Your task to perform on an android device: toggle notification dots Image 0: 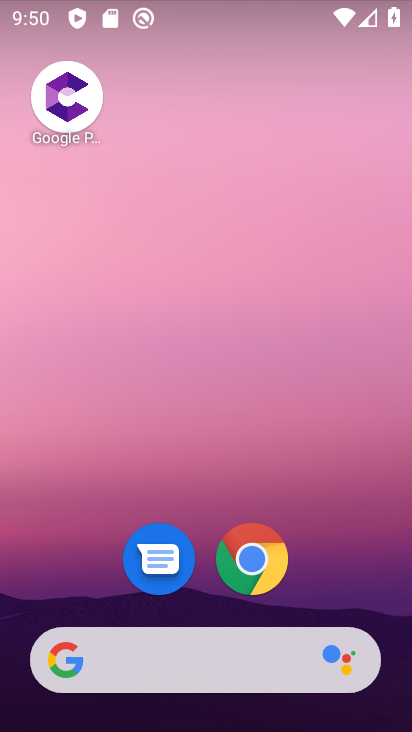
Step 0: press home button
Your task to perform on an android device: toggle notification dots Image 1: 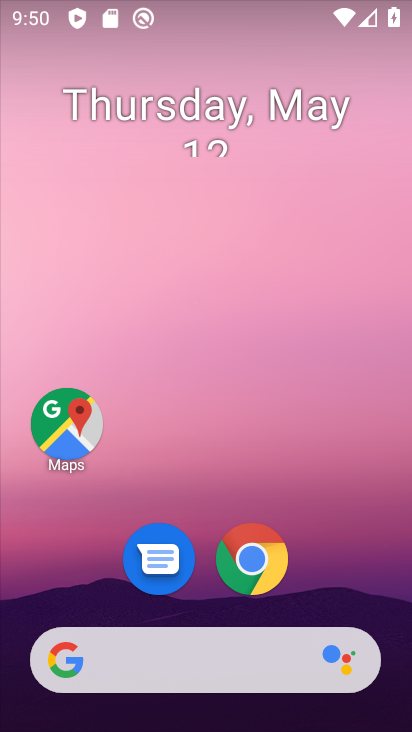
Step 1: drag from (214, 595) to (242, 79)
Your task to perform on an android device: toggle notification dots Image 2: 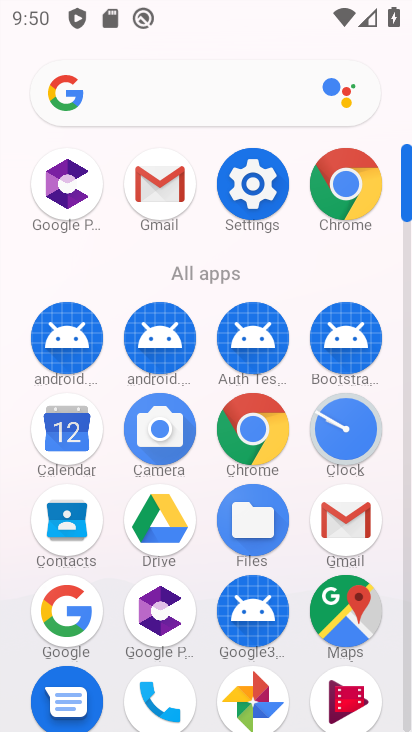
Step 2: click (270, 213)
Your task to perform on an android device: toggle notification dots Image 3: 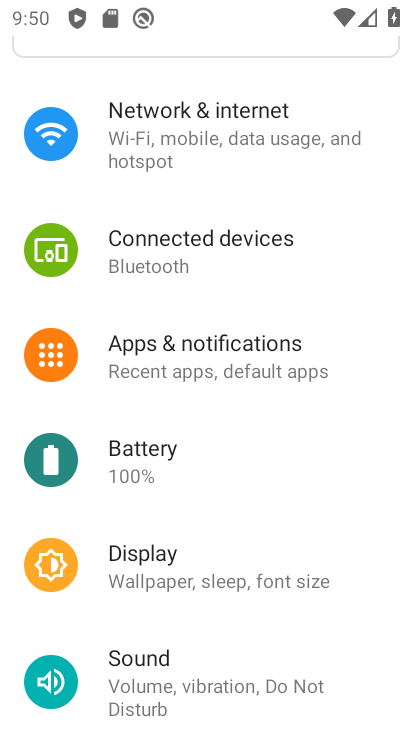
Step 3: click (250, 374)
Your task to perform on an android device: toggle notification dots Image 4: 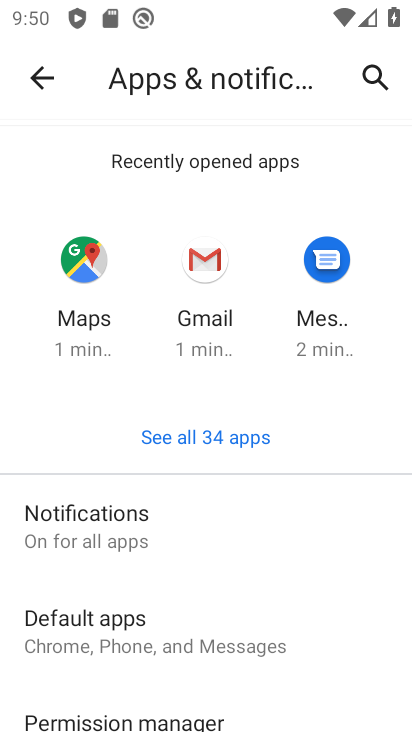
Step 4: click (103, 530)
Your task to perform on an android device: toggle notification dots Image 5: 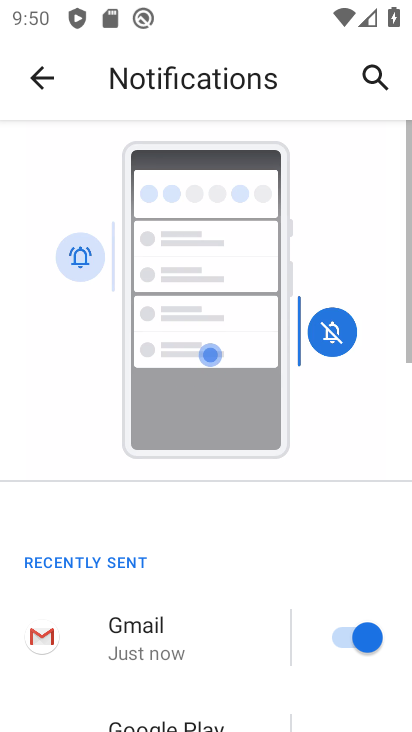
Step 5: drag from (144, 586) to (179, 287)
Your task to perform on an android device: toggle notification dots Image 6: 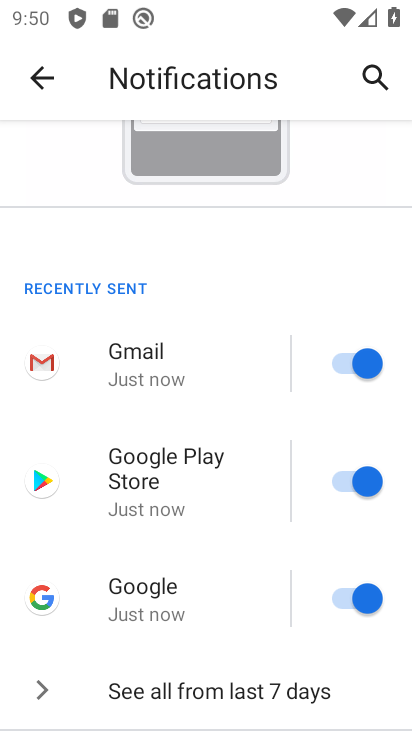
Step 6: drag from (134, 590) to (170, 262)
Your task to perform on an android device: toggle notification dots Image 7: 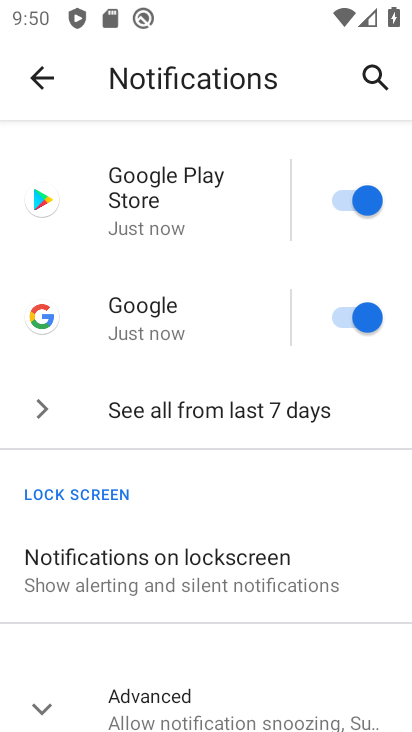
Step 7: drag from (175, 654) to (218, 386)
Your task to perform on an android device: toggle notification dots Image 8: 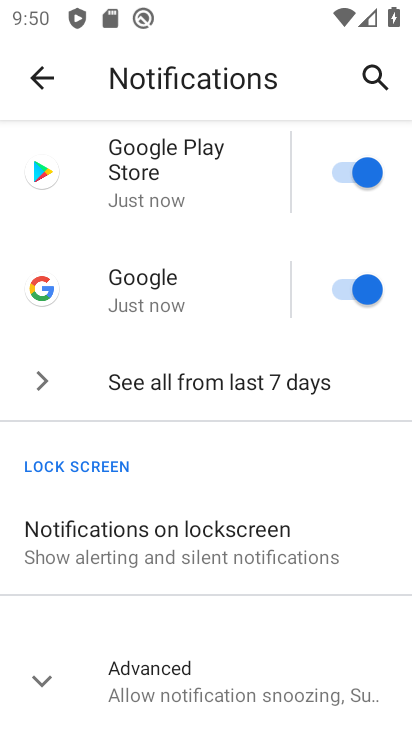
Step 8: click (135, 678)
Your task to perform on an android device: toggle notification dots Image 9: 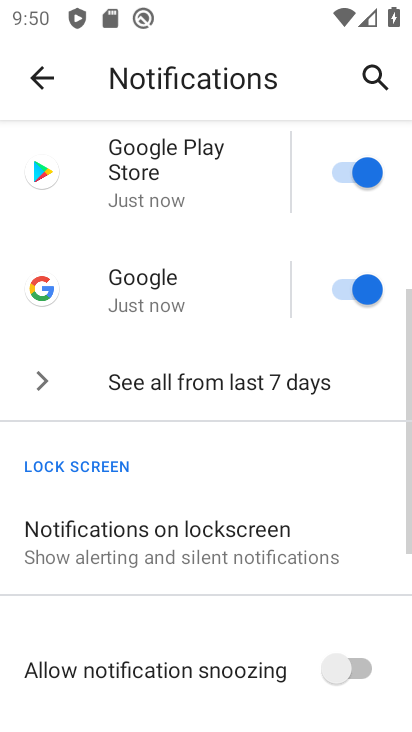
Step 9: drag from (174, 667) to (177, 246)
Your task to perform on an android device: toggle notification dots Image 10: 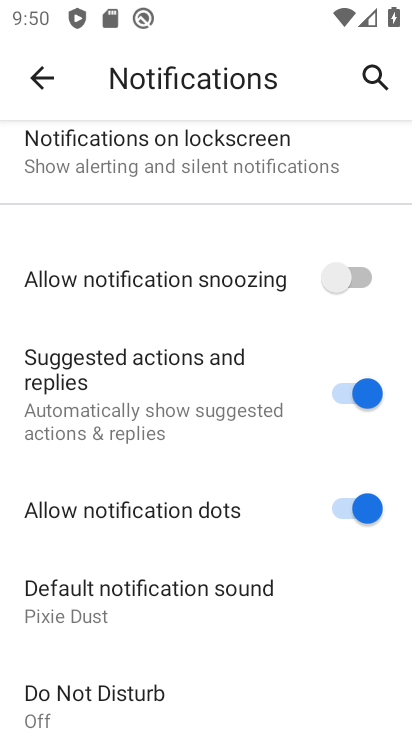
Step 10: click (340, 505)
Your task to perform on an android device: toggle notification dots Image 11: 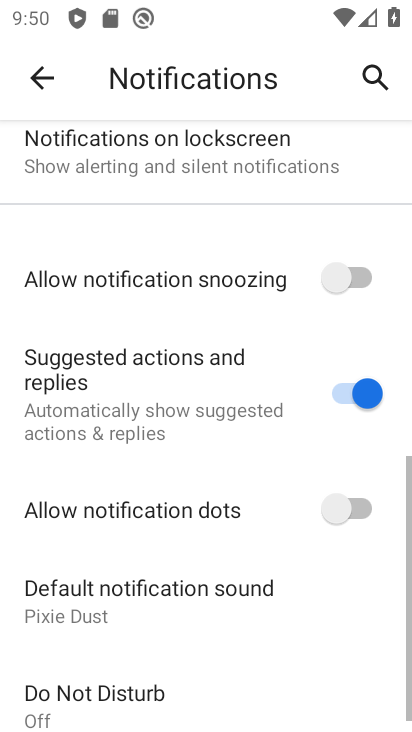
Step 11: task complete